Your task to perform on an android device: Open the web browser Image 0: 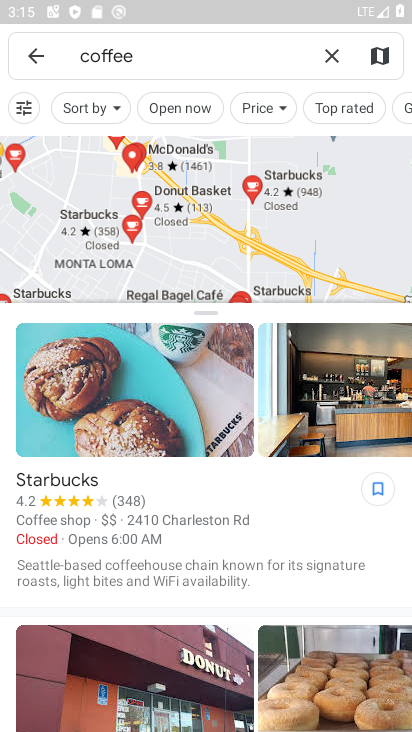
Step 0: press home button
Your task to perform on an android device: Open the web browser Image 1: 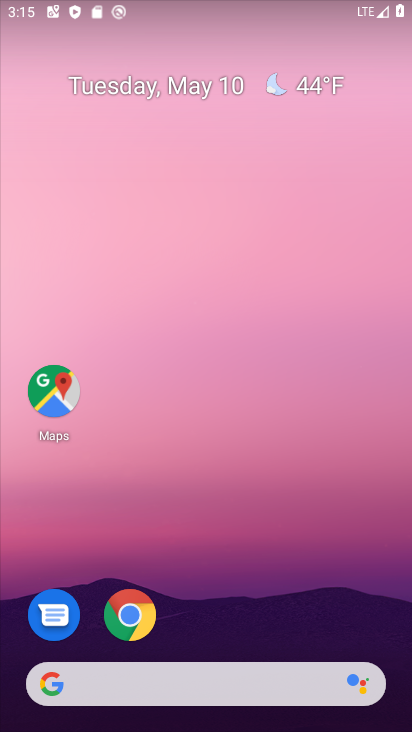
Step 1: drag from (264, 604) to (347, 31)
Your task to perform on an android device: Open the web browser Image 2: 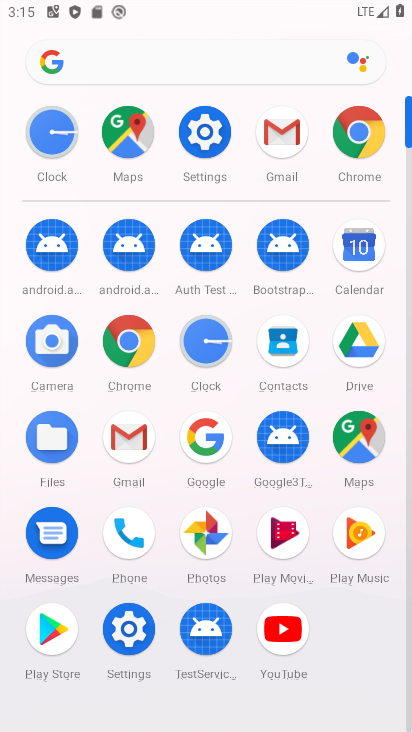
Step 2: click (119, 331)
Your task to perform on an android device: Open the web browser Image 3: 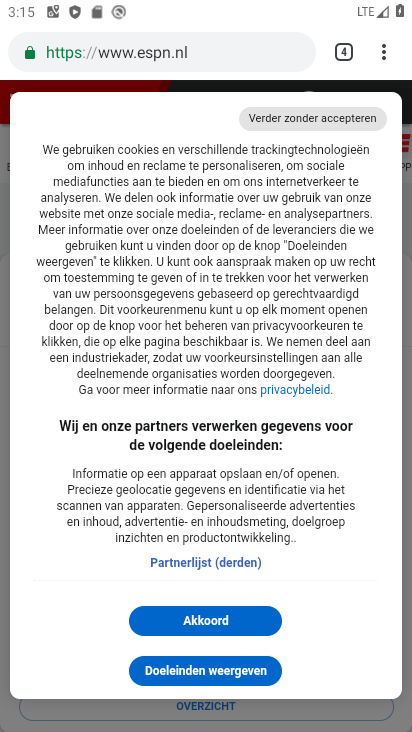
Step 3: click (379, 58)
Your task to perform on an android device: Open the web browser Image 4: 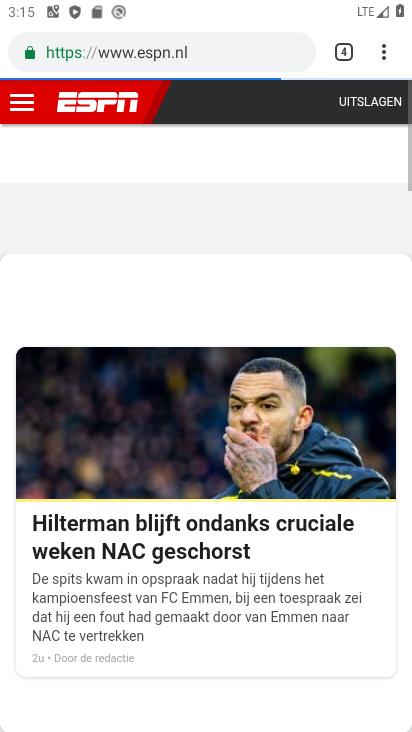
Step 4: click (375, 41)
Your task to perform on an android device: Open the web browser Image 5: 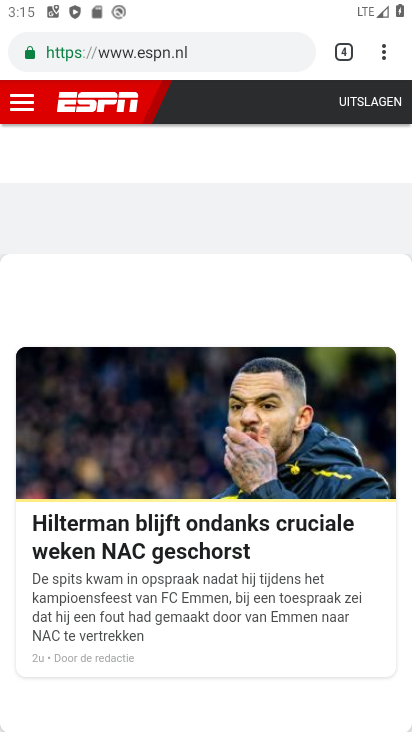
Step 5: drag from (383, 62) to (202, 120)
Your task to perform on an android device: Open the web browser Image 6: 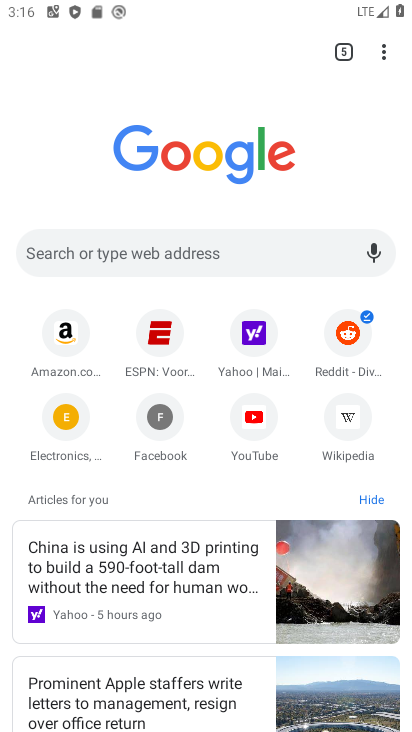
Step 6: click (116, 253)
Your task to perform on an android device: Open the web browser Image 7: 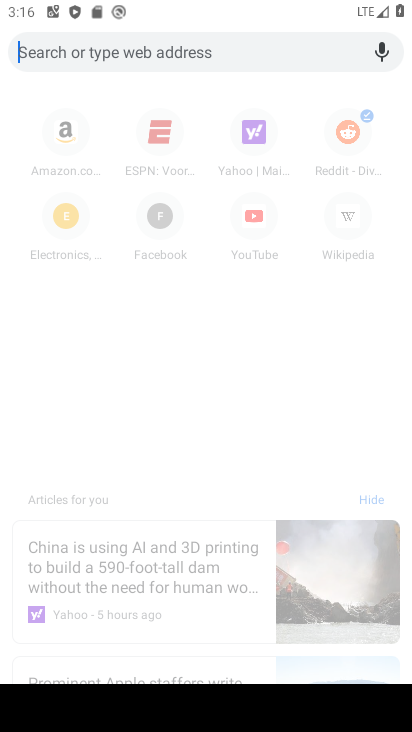
Step 7: type "web browser"
Your task to perform on an android device: Open the web browser Image 8: 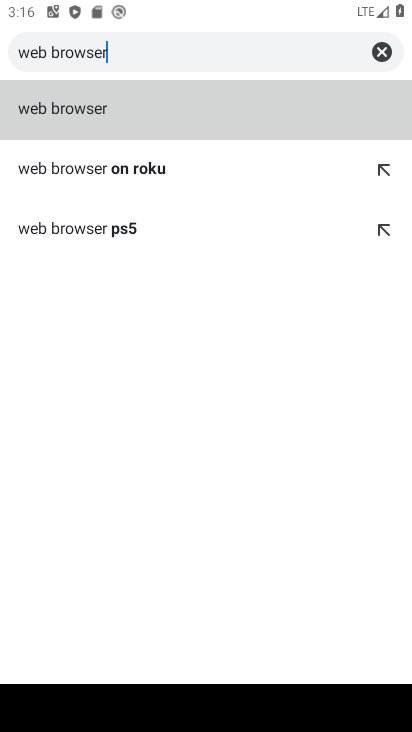
Step 8: click (59, 109)
Your task to perform on an android device: Open the web browser Image 9: 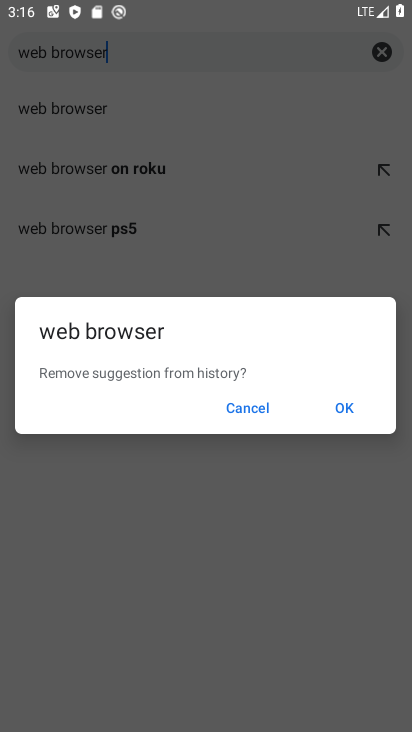
Step 9: click (337, 401)
Your task to perform on an android device: Open the web browser Image 10: 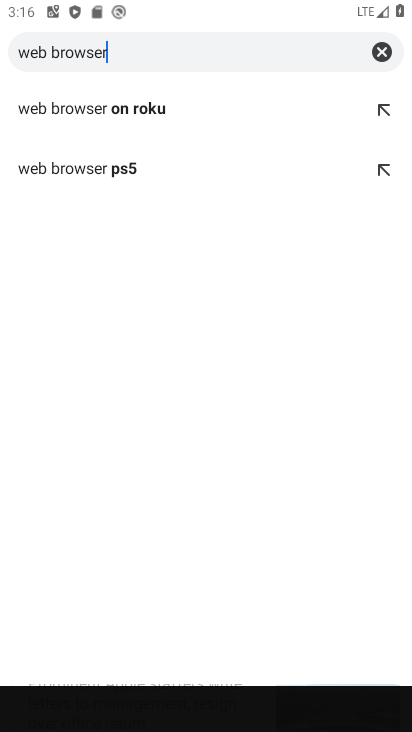
Step 10: click (336, 403)
Your task to perform on an android device: Open the web browser Image 11: 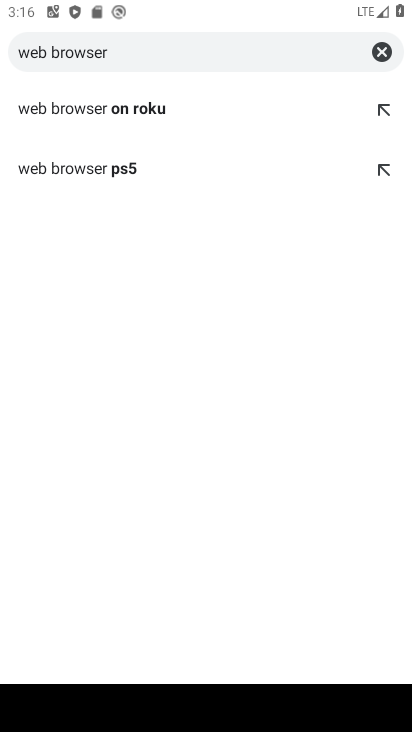
Step 11: click (66, 45)
Your task to perform on an android device: Open the web browser Image 12: 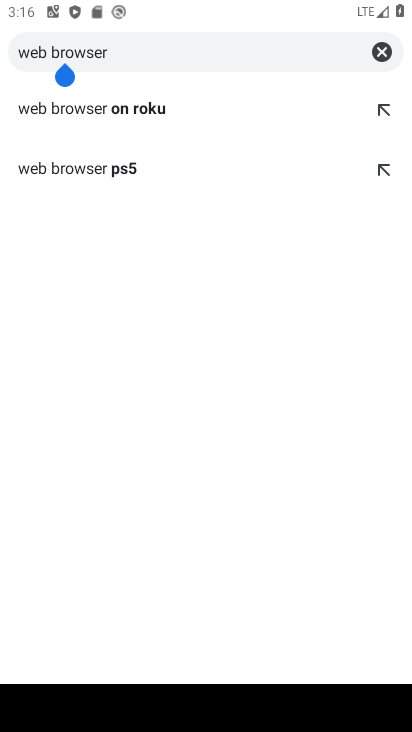
Step 12: click (77, 36)
Your task to perform on an android device: Open the web browser Image 13: 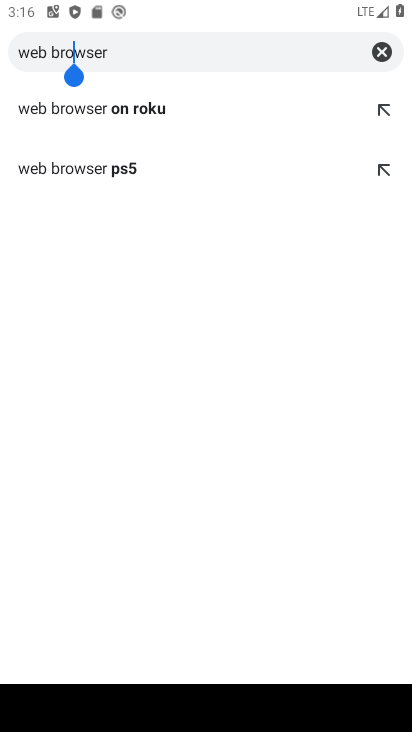
Step 13: click (96, 59)
Your task to perform on an android device: Open the web browser Image 14: 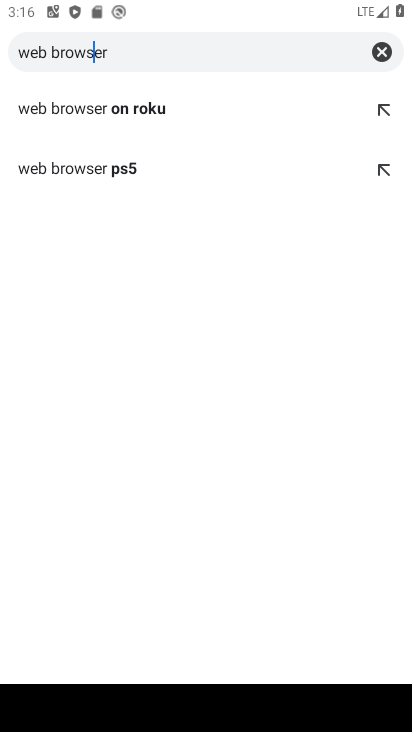
Step 14: click (74, 111)
Your task to perform on an android device: Open the web browser Image 15: 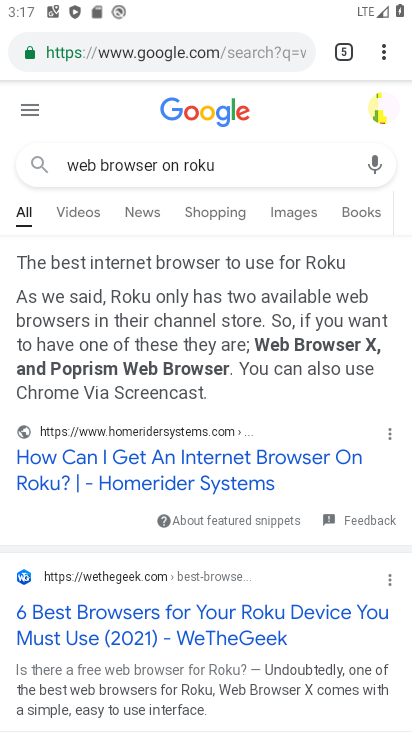
Step 15: task complete